Your task to perform on an android device: Open internet settings Image 0: 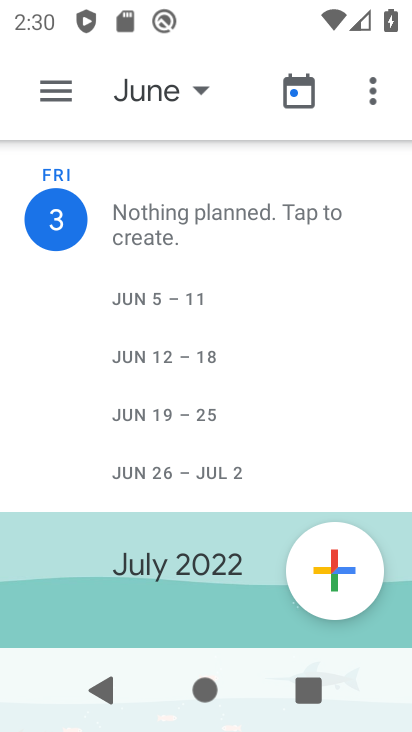
Step 0: task complete